Your task to perform on an android device: Open Maps and search for coffee Image 0: 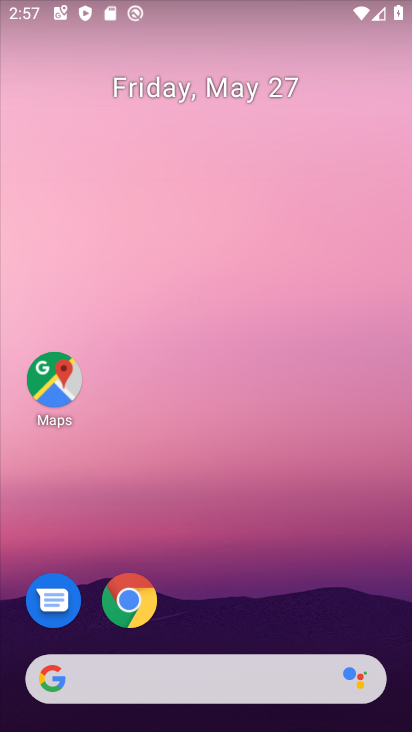
Step 0: click (61, 371)
Your task to perform on an android device: Open Maps and search for coffee Image 1: 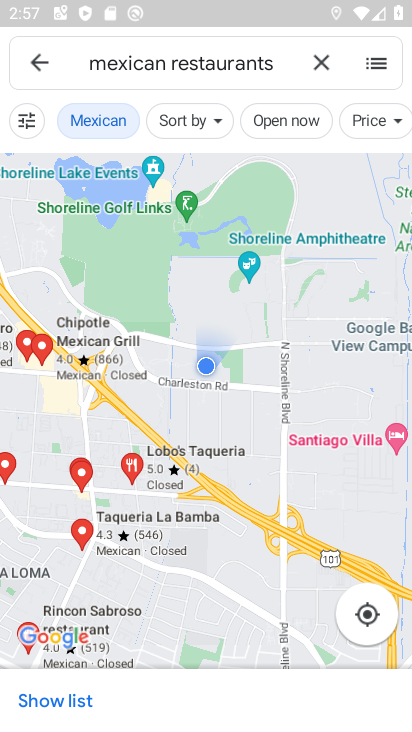
Step 1: click (319, 59)
Your task to perform on an android device: Open Maps and search for coffee Image 2: 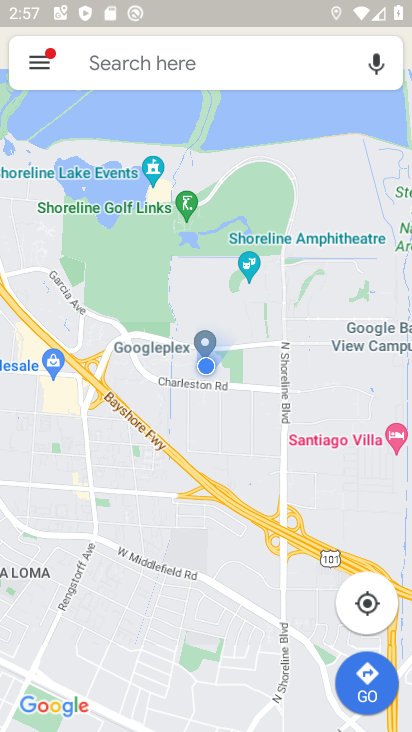
Step 2: click (232, 59)
Your task to perform on an android device: Open Maps and search for coffee Image 3: 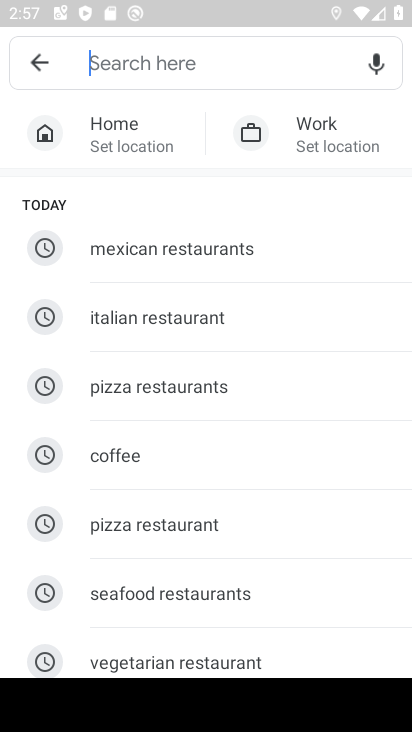
Step 3: click (200, 449)
Your task to perform on an android device: Open Maps and search for coffee Image 4: 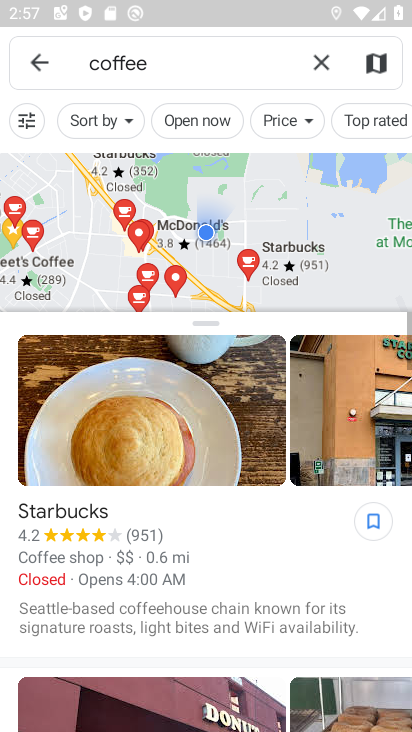
Step 4: task complete